Your task to perform on an android device: Open sound settings Image 0: 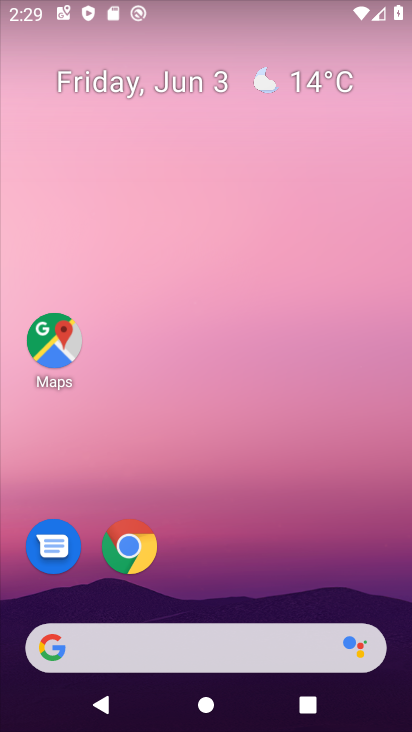
Step 0: drag from (270, 483) to (237, 0)
Your task to perform on an android device: Open sound settings Image 1: 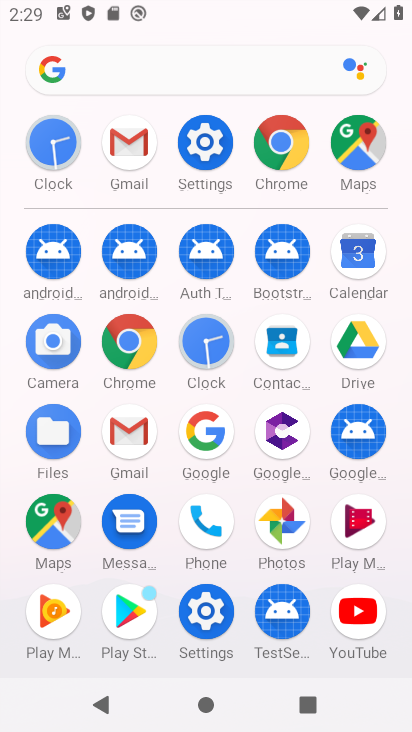
Step 1: click (184, 149)
Your task to perform on an android device: Open sound settings Image 2: 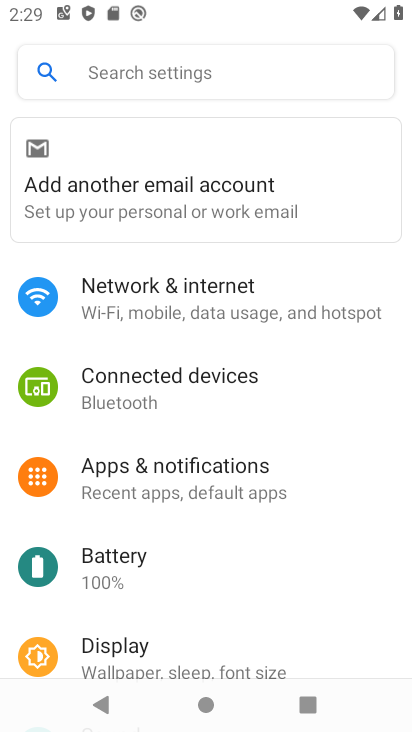
Step 2: drag from (282, 546) to (267, 88)
Your task to perform on an android device: Open sound settings Image 3: 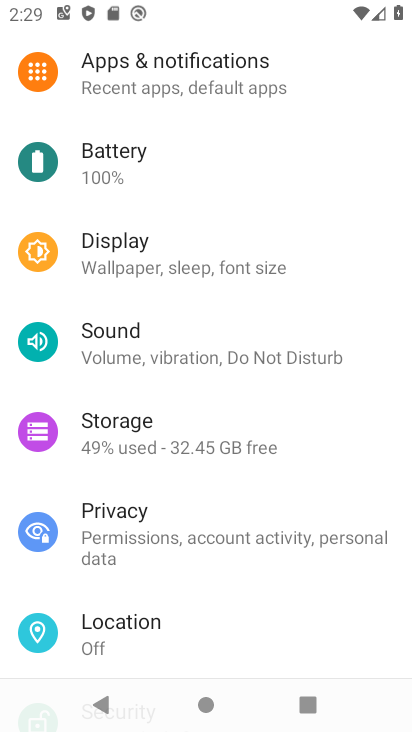
Step 3: click (170, 321)
Your task to perform on an android device: Open sound settings Image 4: 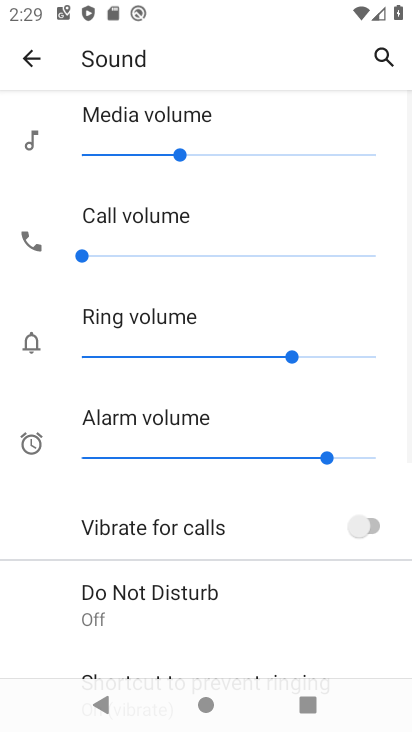
Step 4: task complete